Your task to perform on an android device: Turn off the flashlight Image 0: 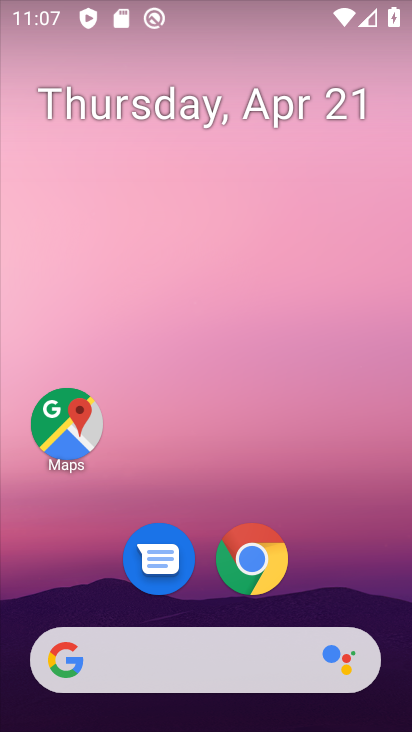
Step 0: drag from (254, 13) to (315, 711)
Your task to perform on an android device: Turn off the flashlight Image 1: 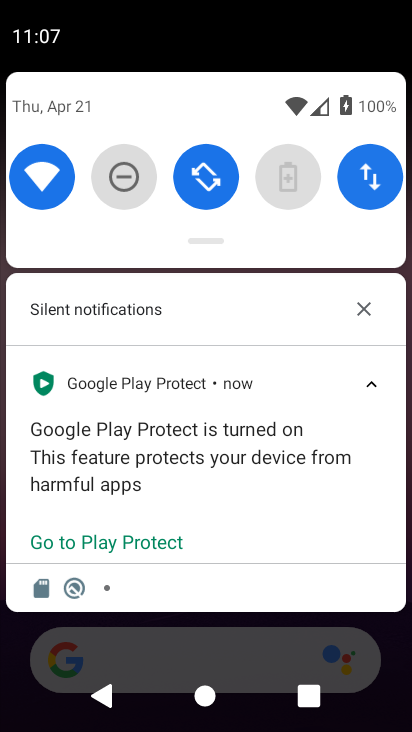
Step 1: task complete